Your task to perform on an android device: Open calendar and show me the first week of next month Image 0: 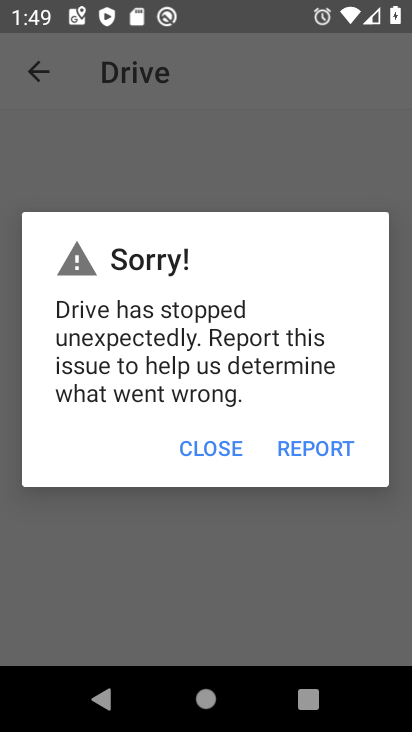
Step 0: press home button
Your task to perform on an android device: Open calendar and show me the first week of next month Image 1: 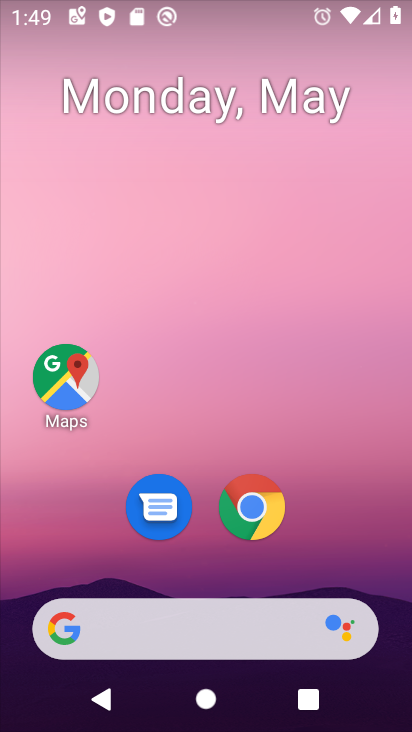
Step 1: drag from (237, 722) to (231, 82)
Your task to perform on an android device: Open calendar and show me the first week of next month Image 2: 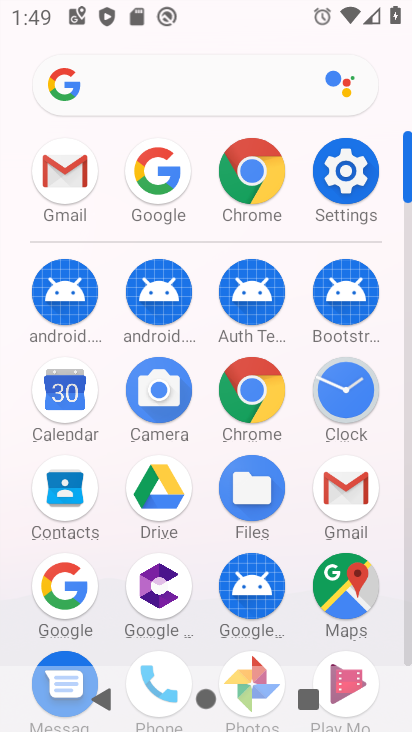
Step 2: click (68, 411)
Your task to perform on an android device: Open calendar and show me the first week of next month Image 3: 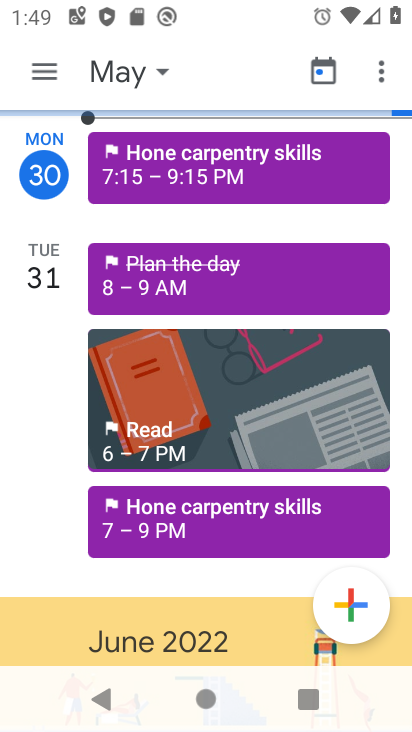
Step 3: click (158, 69)
Your task to perform on an android device: Open calendar and show me the first week of next month Image 4: 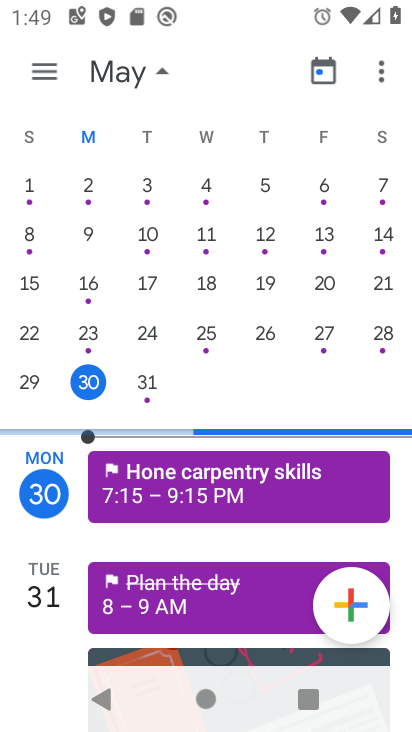
Step 4: drag from (346, 296) to (31, 286)
Your task to perform on an android device: Open calendar and show me the first week of next month Image 5: 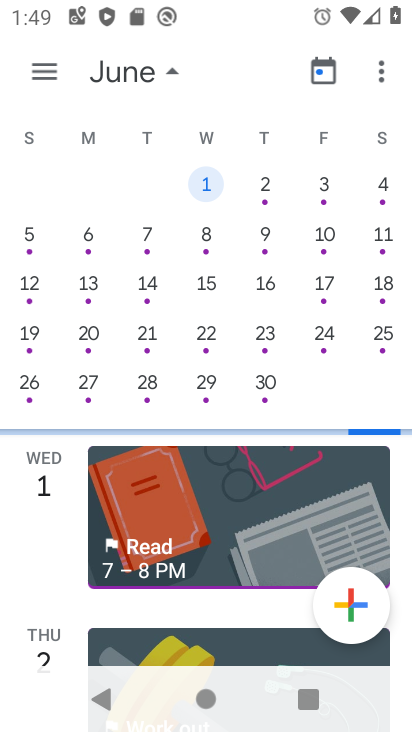
Step 5: click (91, 232)
Your task to perform on an android device: Open calendar and show me the first week of next month Image 6: 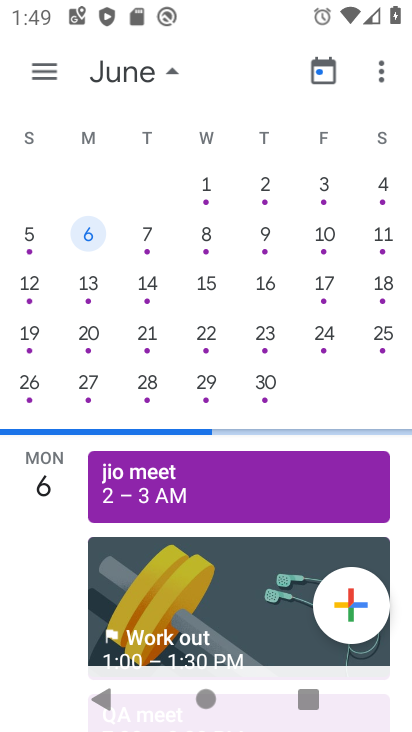
Step 6: click (44, 70)
Your task to perform on an android device: Open calendar and show me the first week of next month Image 7: 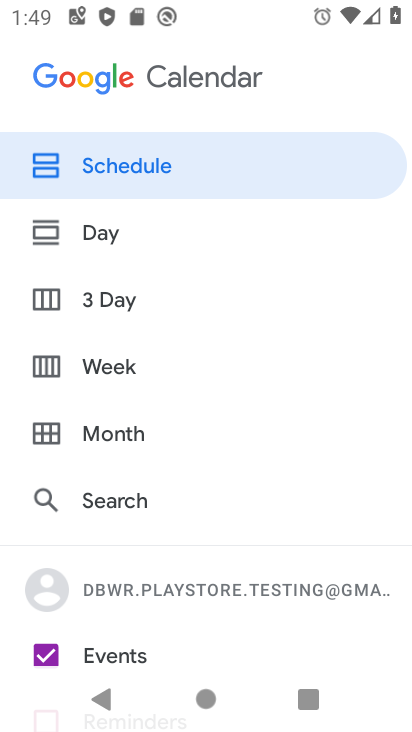
Step 7: click (102, 365)
Your task to perform on an android device: Open calendar and show me the first week of next month Image 8: 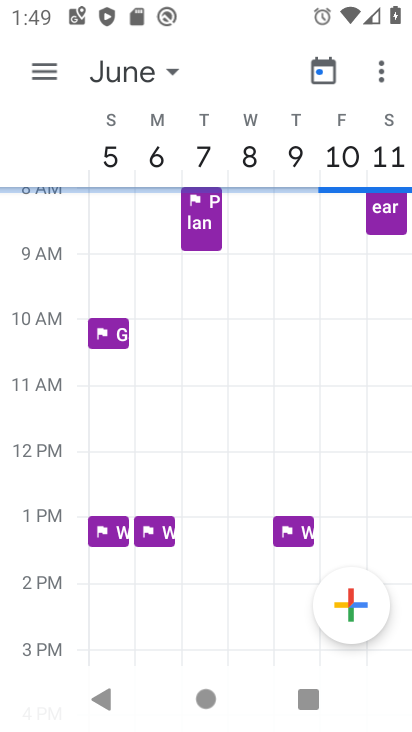
Step 8: task complete